Your task to perform on an android device: Open Google Chrome and click the shortcut for Amazon.com Image 0: 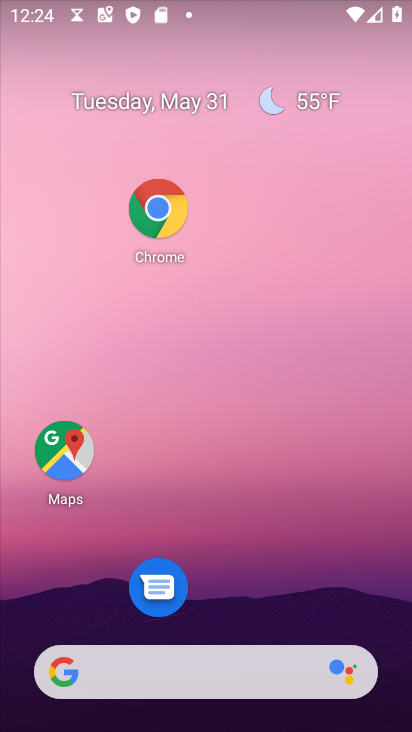
Step 0: click (176, 210)
Your task to perform on an android device: Open Google Chrome and click the shortcut for Amazon.com Image 1: 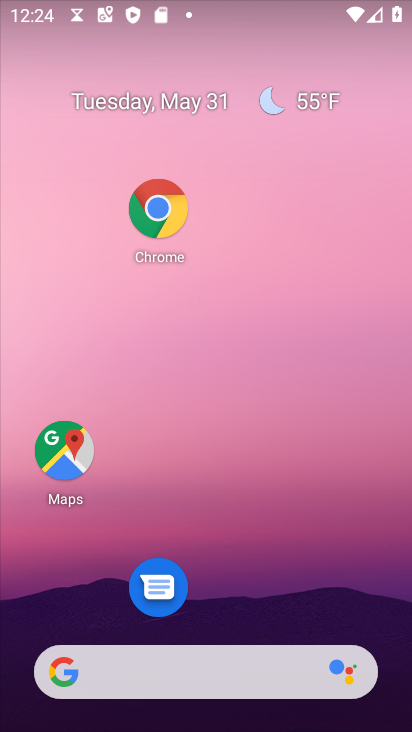
Step 1: click (176, 210)
Your task to perform on an android device: Open Google Chrome and click the shortcut for Amazon.com Image 2: 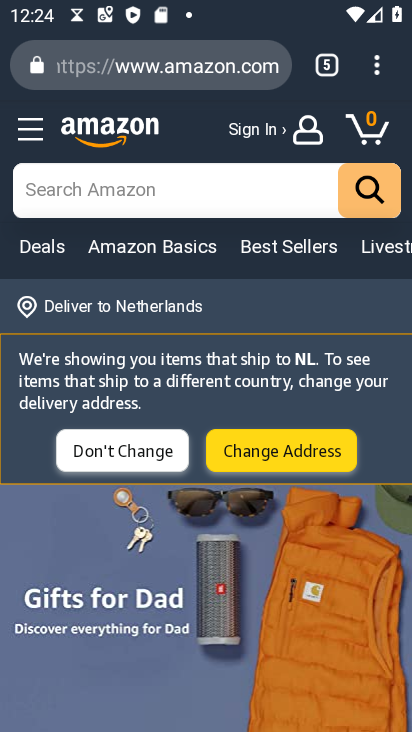
Step 2: click (327, 78)
Your task to perform on an android device: Open Google Chrome and click the shortcut for Amazon.com Image 3: 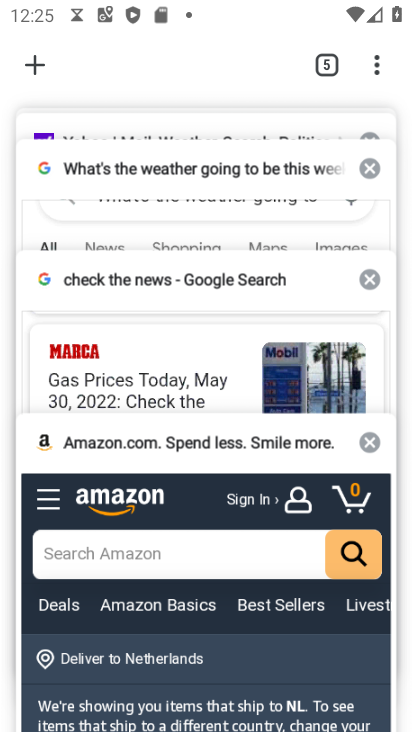
Step 3: click (40, 62)
Your task to perform on an android device: Open Google Chrome and click the shortcut for Amazon.com Image 4: 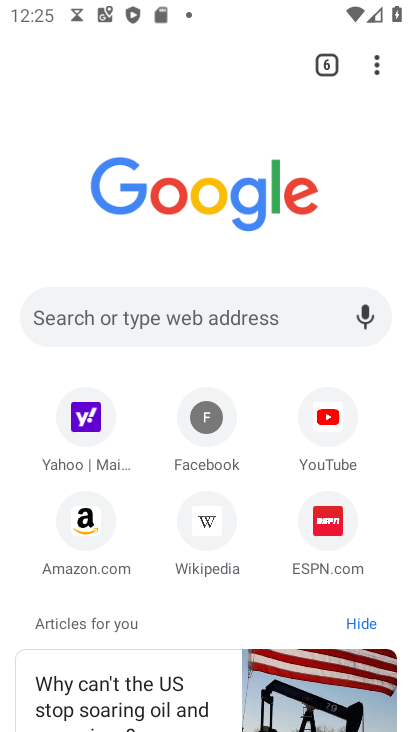
Step 4: click (92, 512)
Your task to perform on an android device: Open Google Chrome and click the shortcut for Amazon.com Image 5: 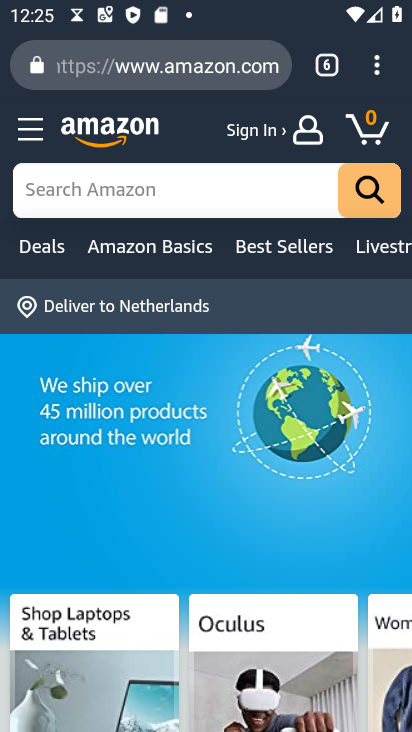
Step 5: task complete